Your task to perform on an android device: change the upload size in google photos Image 0: 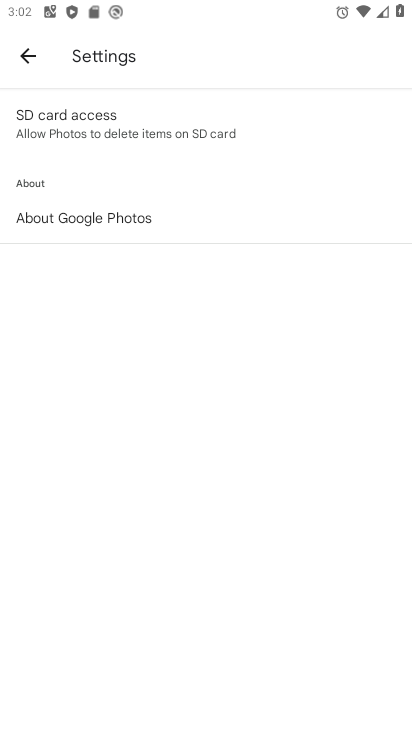
Step 0: press home button
Your task to perform on an android device: change the upload size in google photos Image 1: 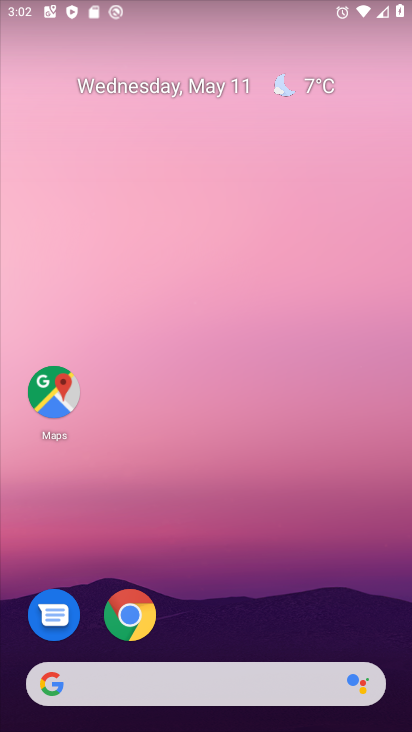
Step 1: drag from (318, 591) to (296, 94)
Your task to perform on an android device: change the upload size in google photos Image 2: 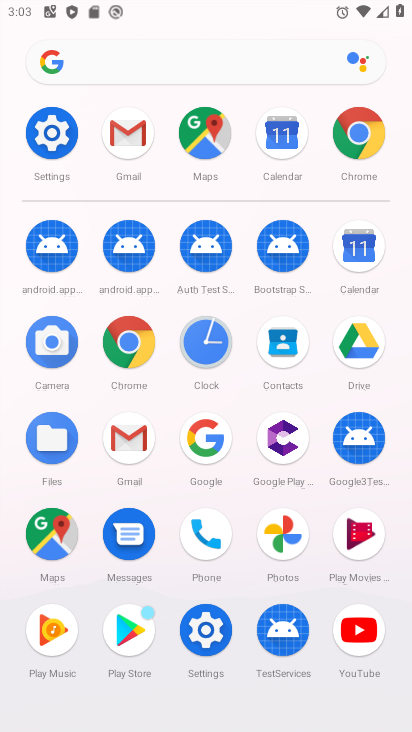
Step 2: click (265, 539)
Your task to perform on an android device: change the upload size in google photos Image 3: 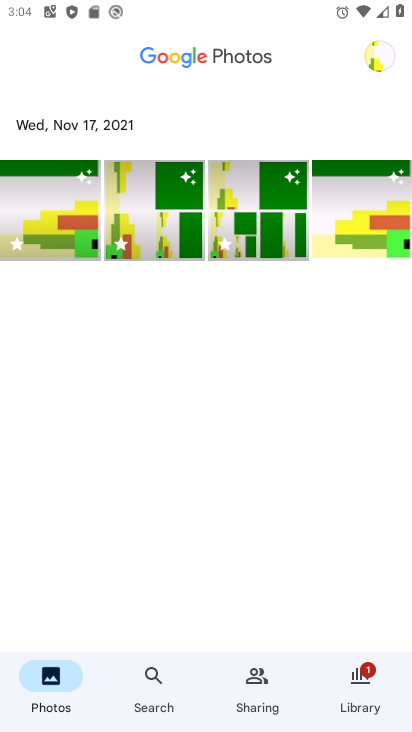
Step 3: click (374, 51)
Your task to perform on an android device: change the upload size in google photos Image 4: 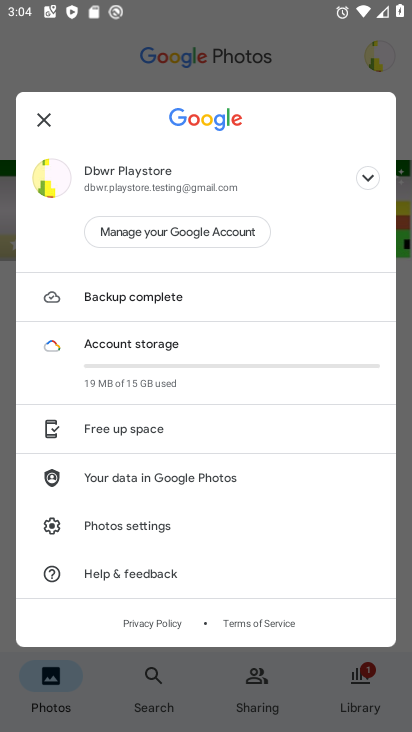
Step 4: click (134, 527)
Your task to perform on an android device: change the upload size in google photos Image 5: 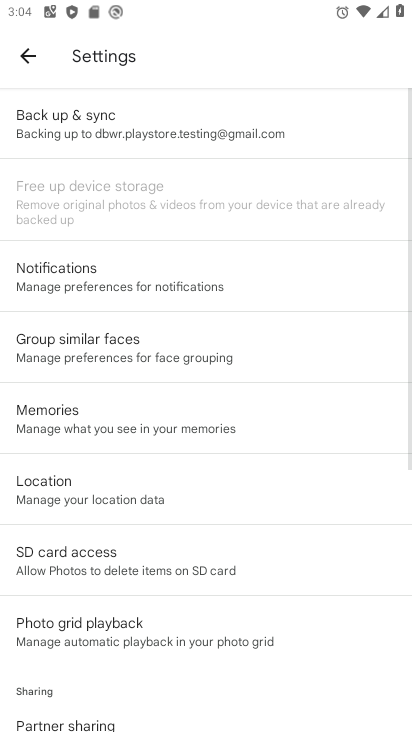
Step 5: click (151, 119)
Your task to perform on an android device: change the upload size in google photos Image 6: 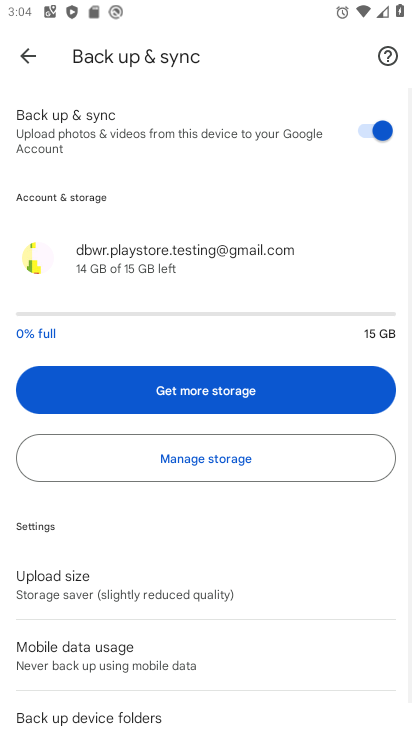
Step 6: click (145, 591)
Your task to perform on an android device: change the upload size in google photos Image 7: 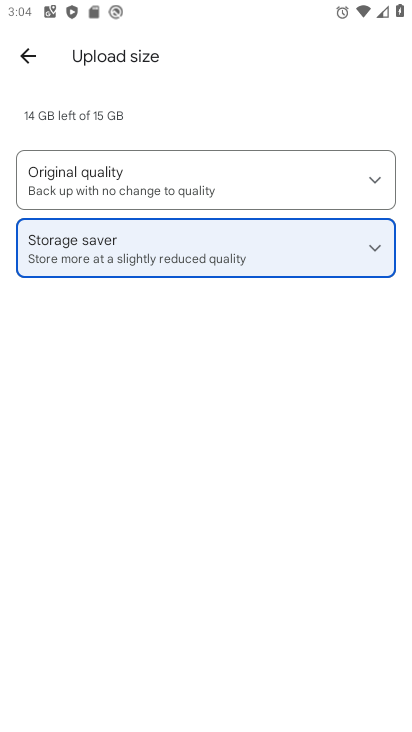
Step 7: click (174, 184)
Your task to perform on an android device: change the upload size in google photos Image 8: 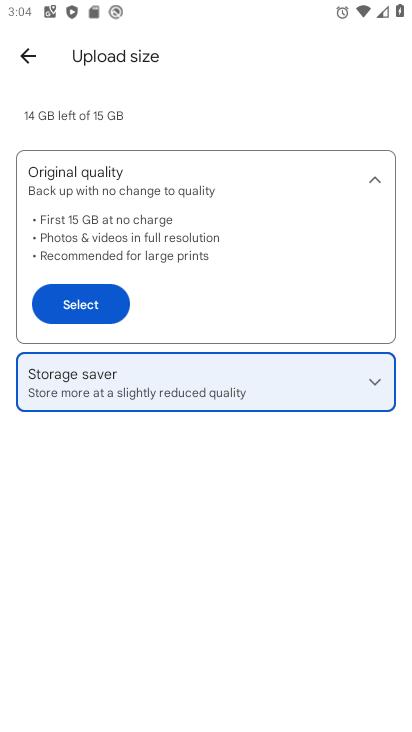
Step 8: click (82, 310)
Your task to perform on an android device: change the upload size in google photos Image 9: 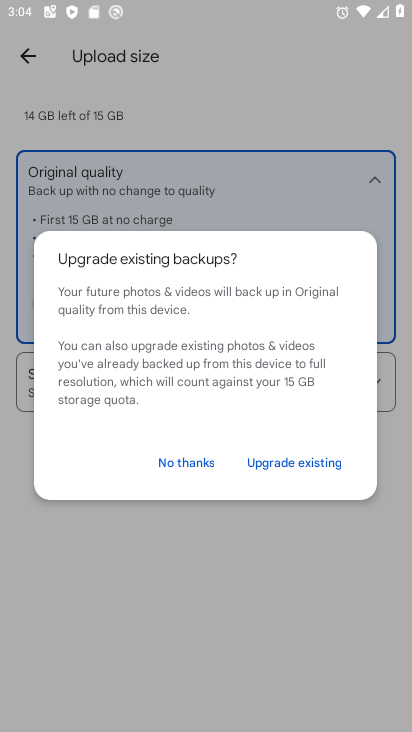
Step 9: click (187, 469)
Your task to perform on an android device: change the upload size in google photos Image 10: 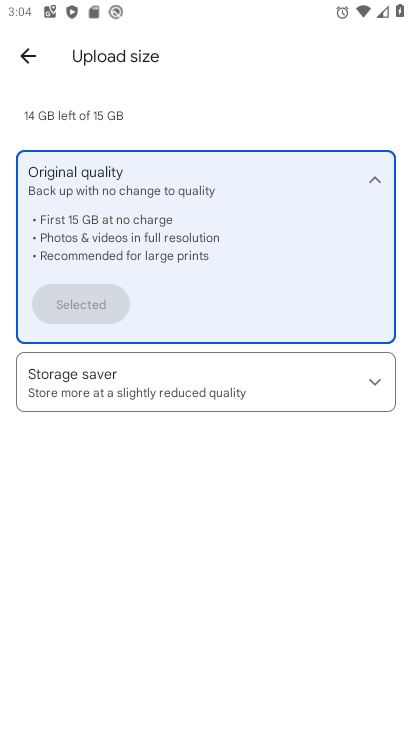
Step 10: task complete